Your task to perform on an android device: turn off notifications in google photos Image 0: 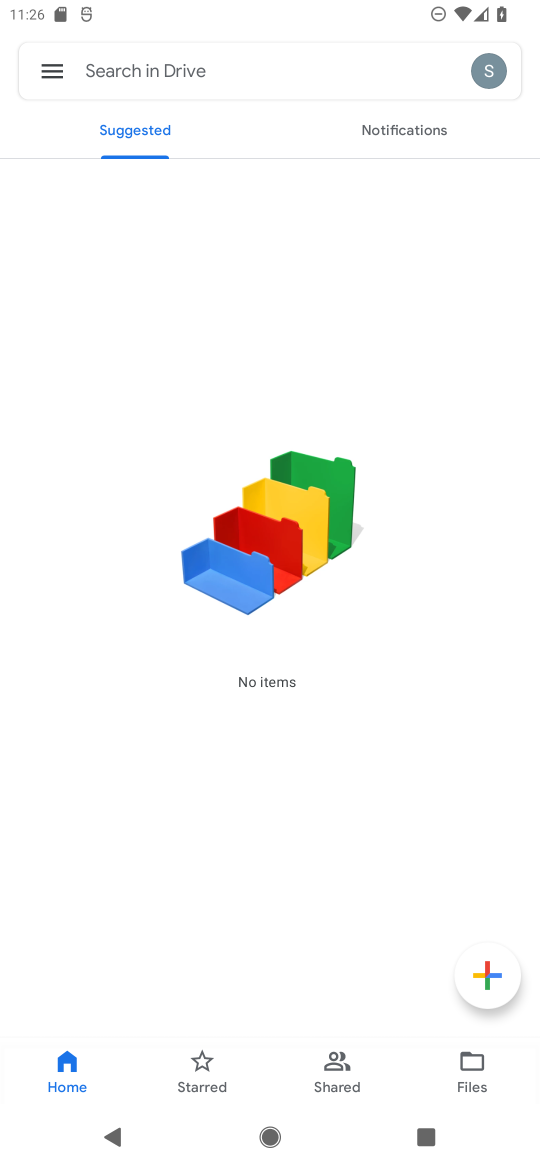
Step 0: press home button
Your task to perform on an android device: turn off notifications in google photos Image 1: 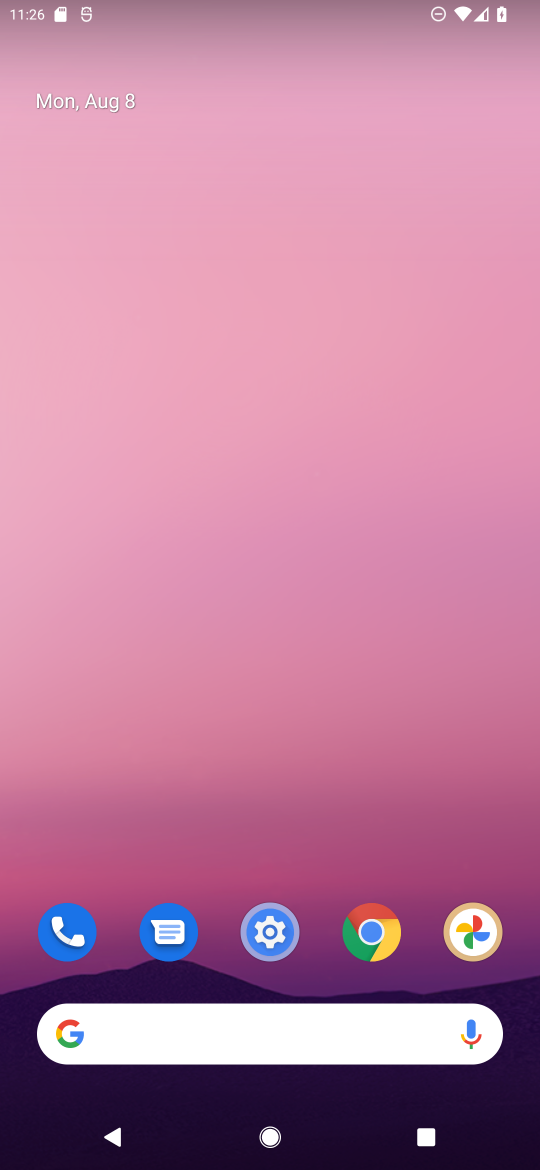
Step 1: click (441, 934)
Your task to perform on an android device: turn off notifications in google photos Image 2: 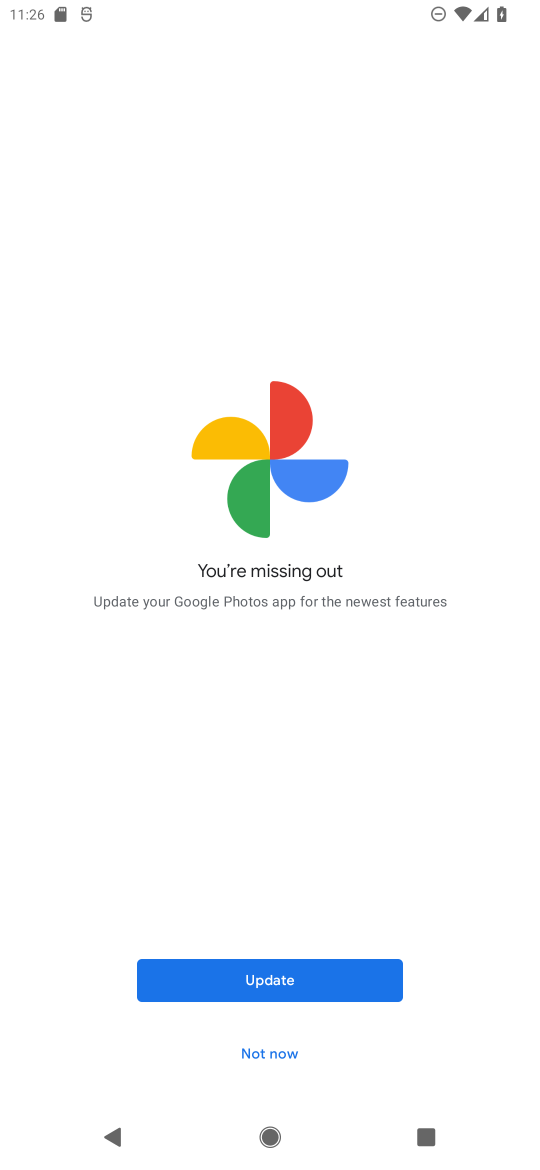
Step 2: click (279, 1060)
Your task to perform on an android device: turn off notifications in google photos Image 3: 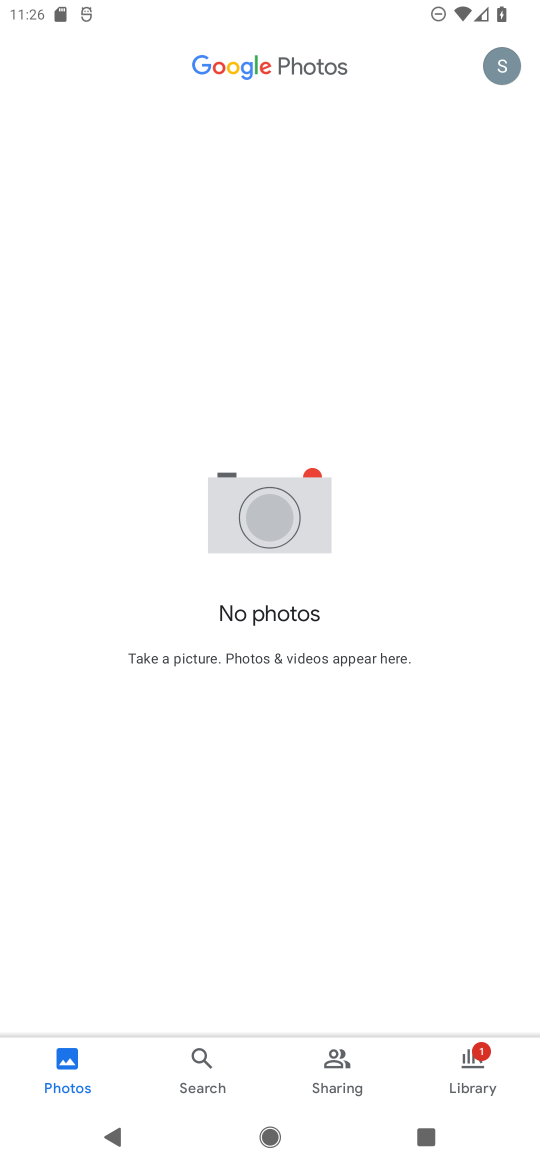
Step 3: click (504, 62)
Your task to perform on an android device: turn off notifications in google photos Image 4: 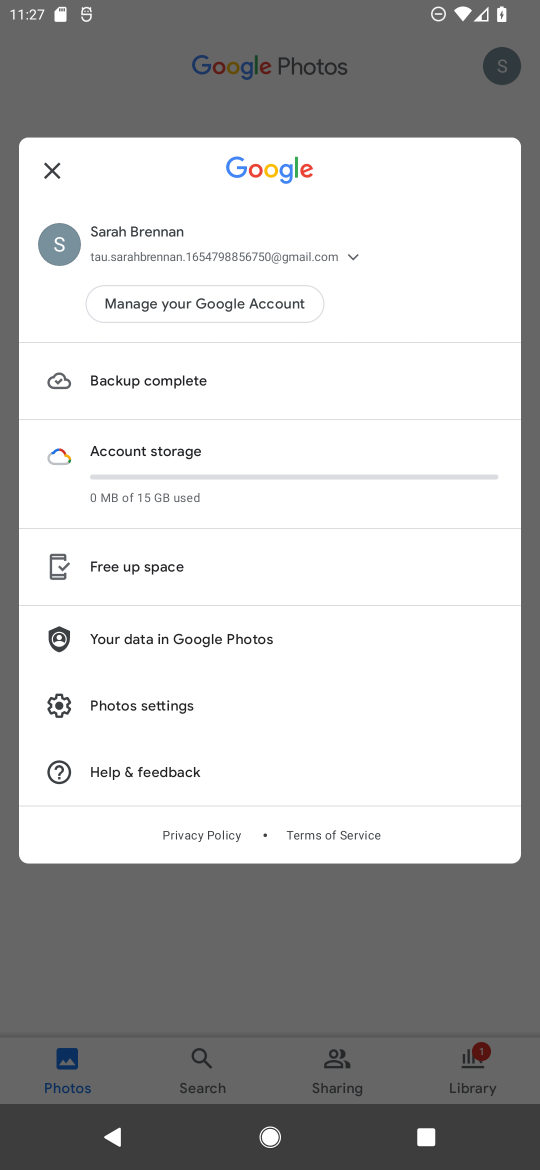
Step 4: click (171, 710)
Your task to perform on an android device: turn off notifications in google photos Image 5: 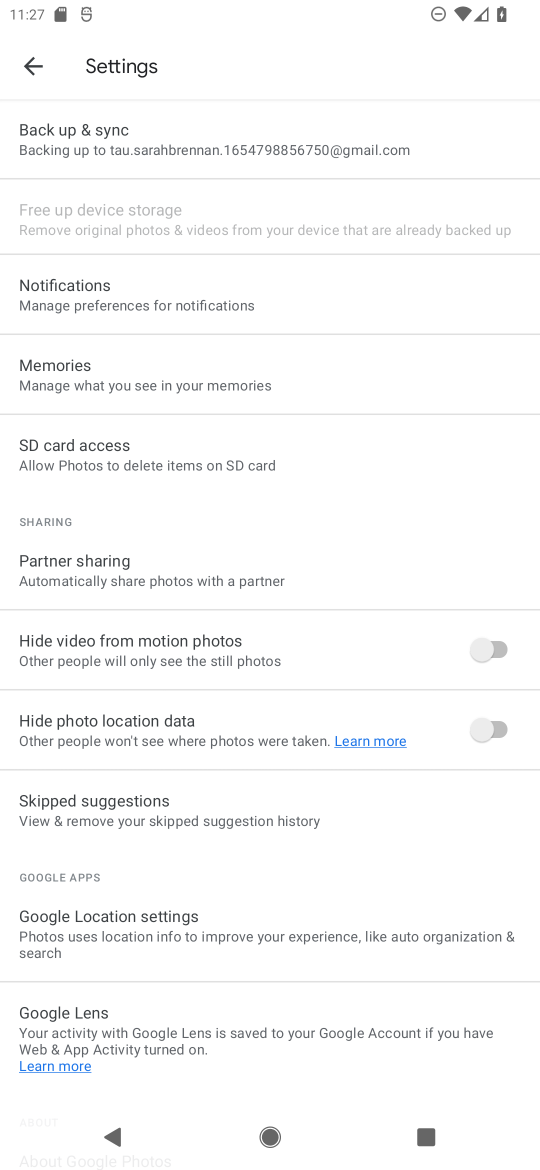
Step 5: click (135, 307)
Your task to perform on an android device: turn off notifications in google photos Image 6: 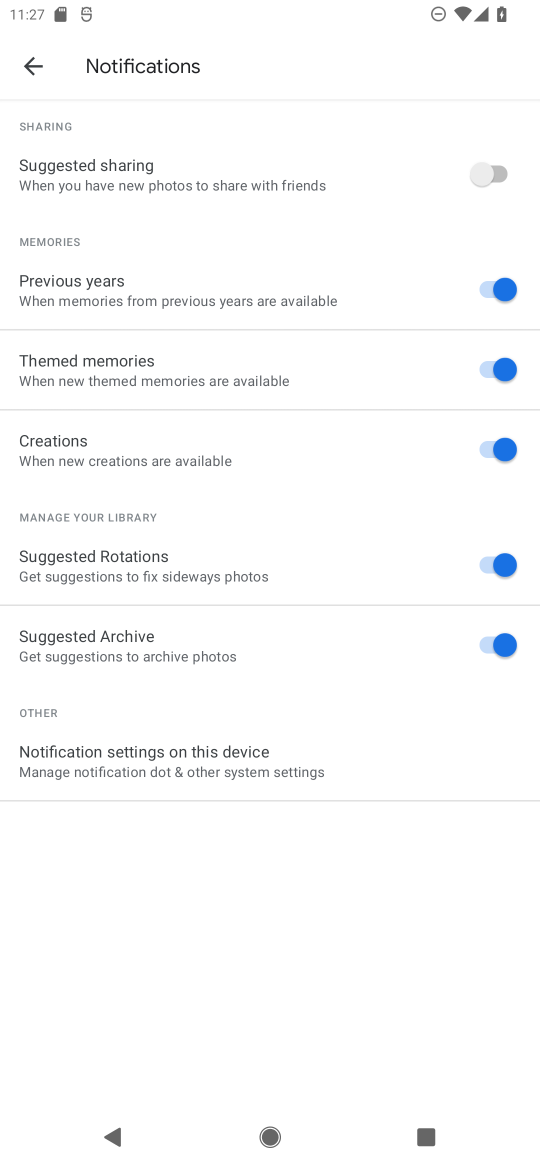
Step 6: click (322, 771)
Your task to perform on an android device: turn off notifications in google photos Image 7: 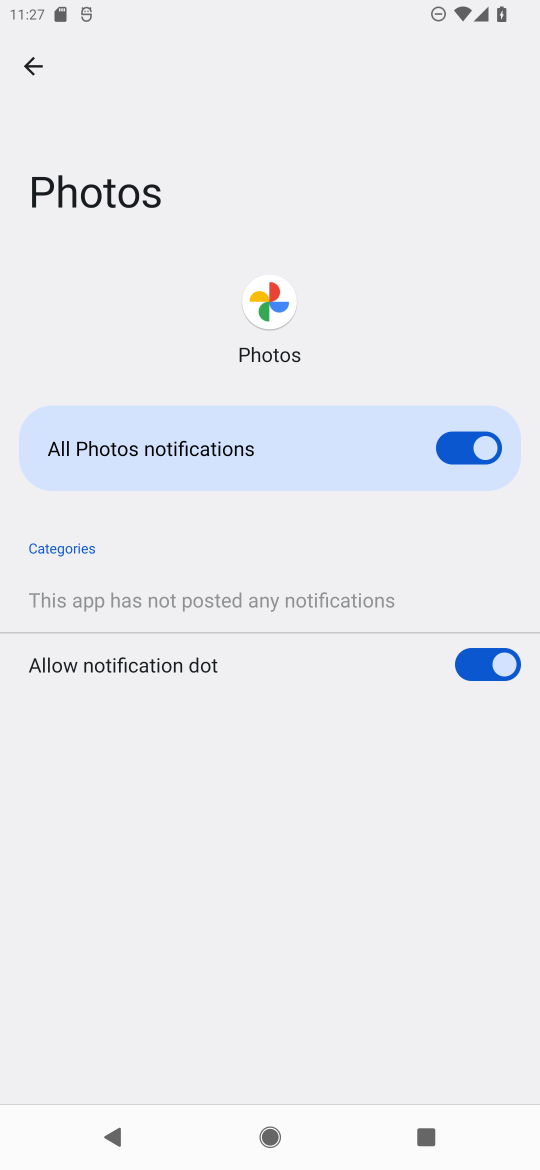
Step 7: click (443, 457)
Your task to perform on an android device: turn off notifications in google photos Image 8: 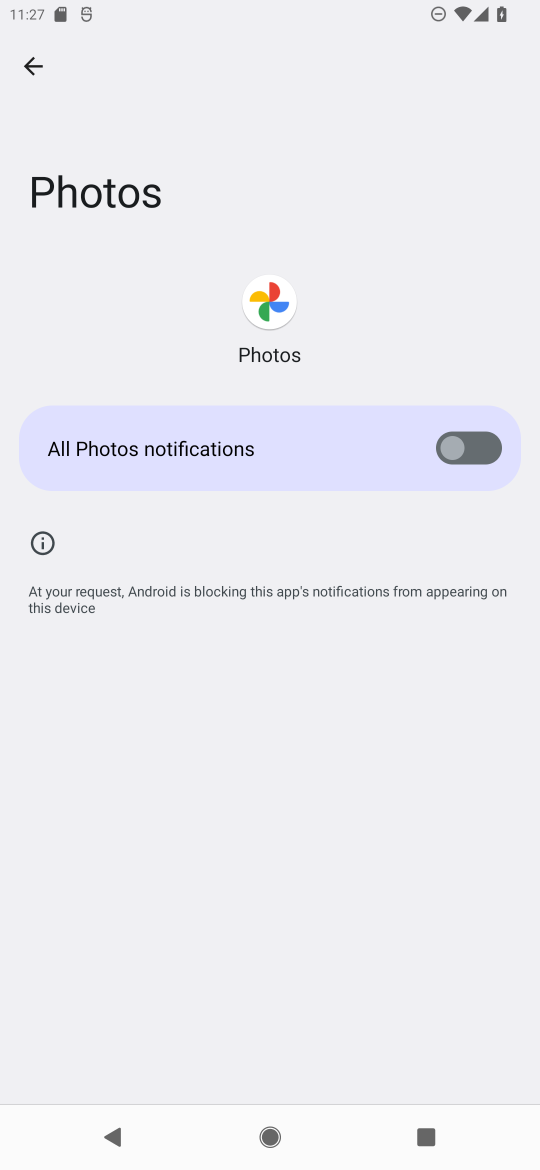
Step 8: task complete